Your task to perform on an android device: turn on bluetooth scan Image 0: 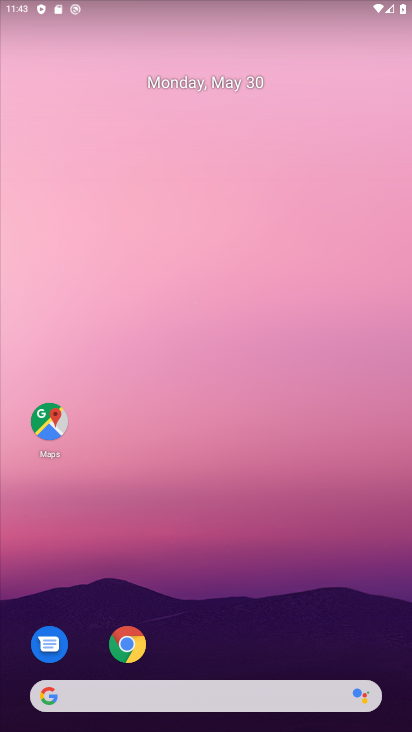
Step 0: drag from (185, 616) to (226, 143)
Your task to perform on an android device: turn on bluetooth scan Image 1: 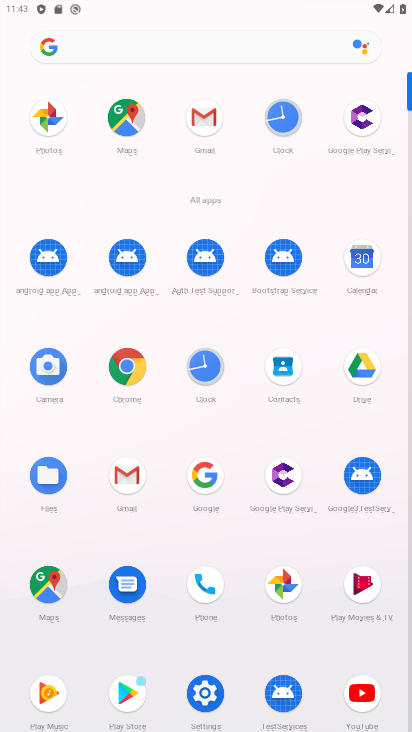
Step 1: click (202, 698)
Your task to perform on an android device: turn on bluetooth scan Image 2: 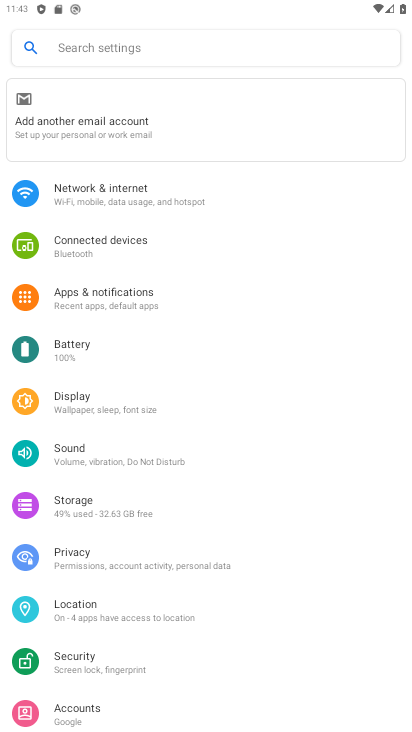
Step 2: click (97, 608)
Your task to perform on an android device: turn on bluetooth scan Image 3: 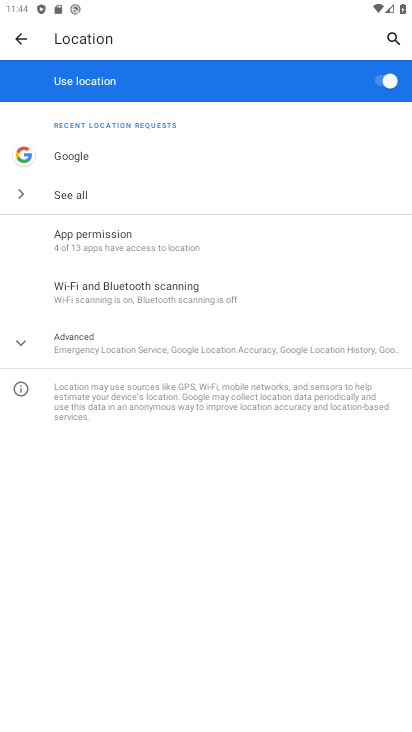
Step 3: click (203, 283)
Your task to perform on an android device: turn on bluetooth scan Image 4: 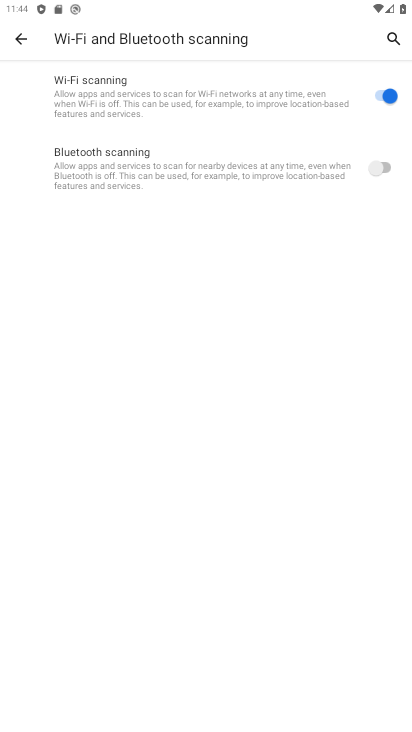
Step 4: click (254, 159)
Your task to perform on an android device: turn on bluetooth scan Image 5: 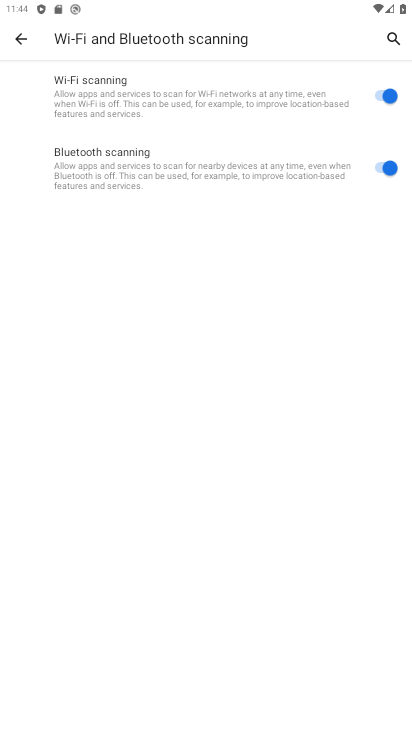
Step 5: task complete